Your task to perform on an android device: Go to Reddit.com Image 0: 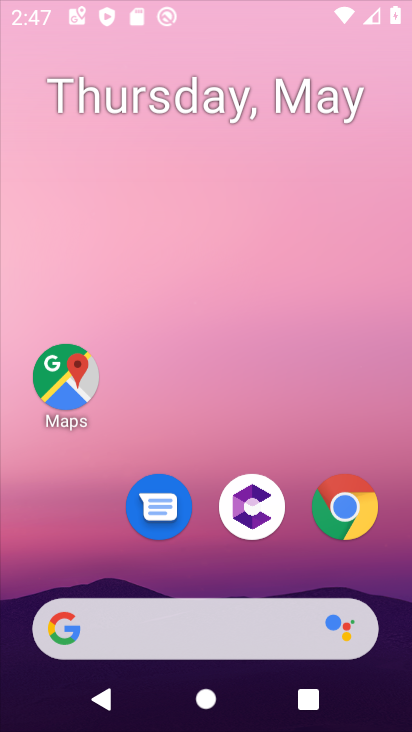
Step 0: press home button
Your task to perform on an android device: Go to Reddit.com Image 1: 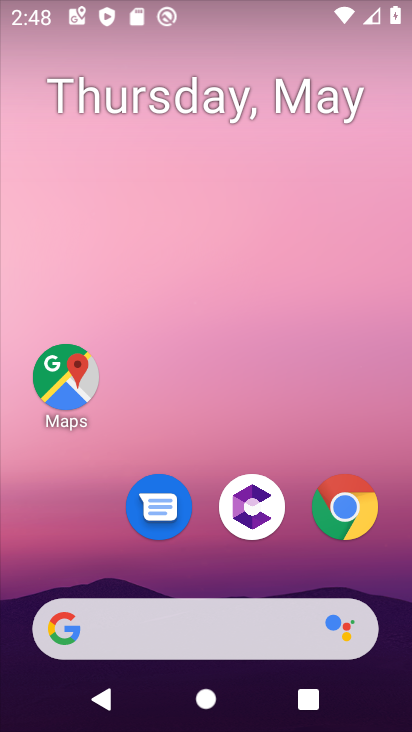
Step 1: click (48, 646)
Your task to perform on an android device: Go to Reddit.com Image 2: 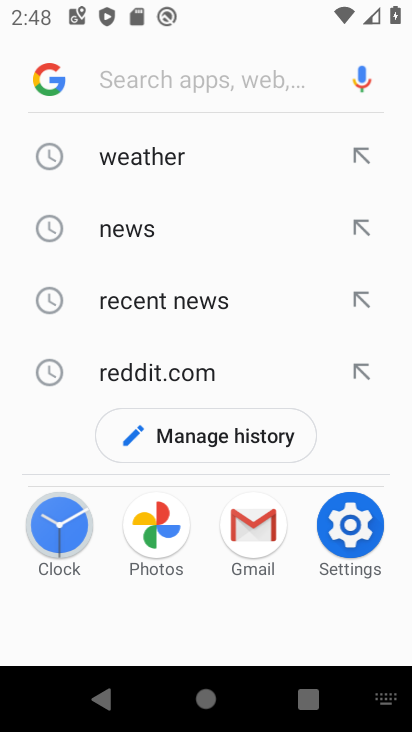
Step 2: click (184, 366)
Your task to perform on an android device: Go to Reddit.com Image 3: 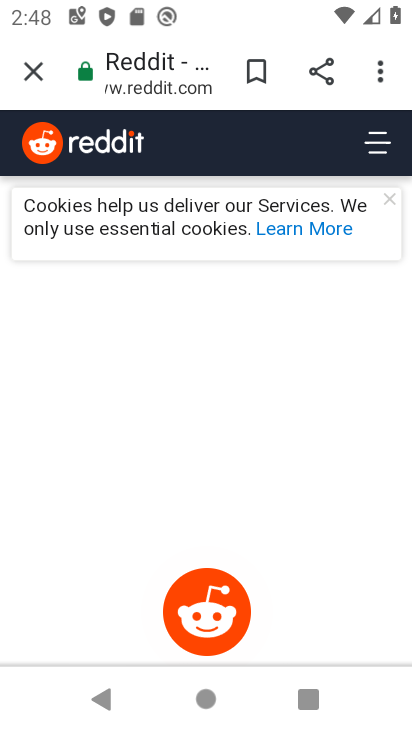
Step 3: task complete